Your task to perform on an android device: turn on sleep mode Image 0: 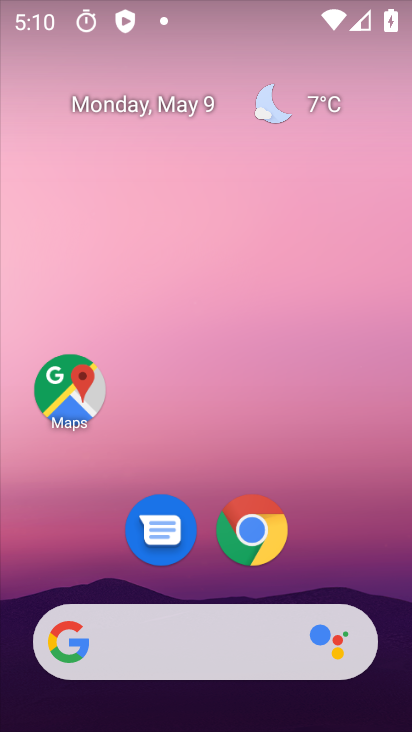
Step 0: drag from (308, 571) to (225, 105)
Your task to perform on an android device: turn on sleep mode Image 1: 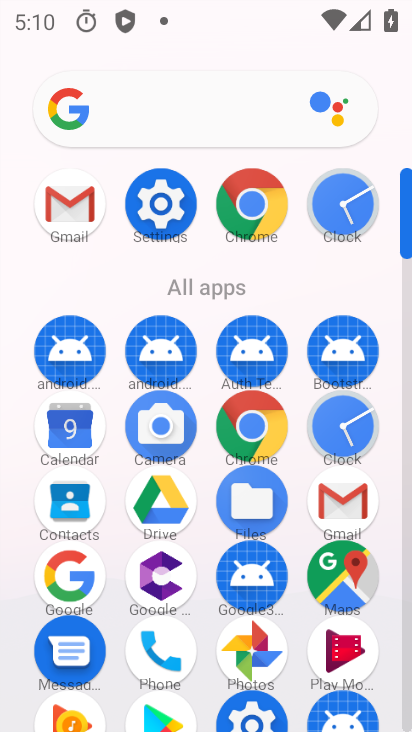
Step 1: click (158, 210)
Your task to perform on an android device: turn on sleep mode Image 2: 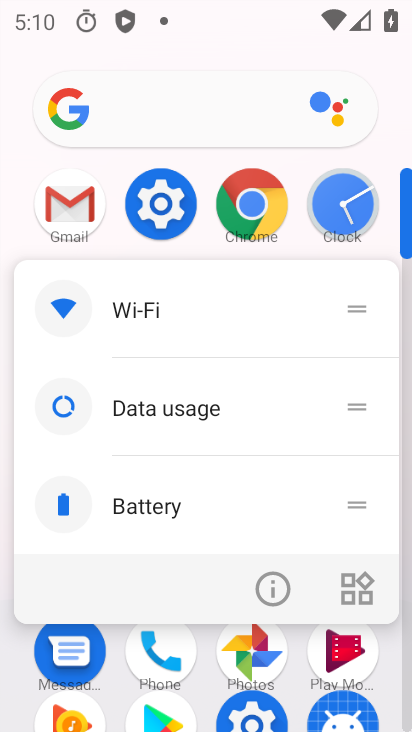
Step 2: click (158, 209)
Your task to perform on an android device: turn on sleep mode Image 3: 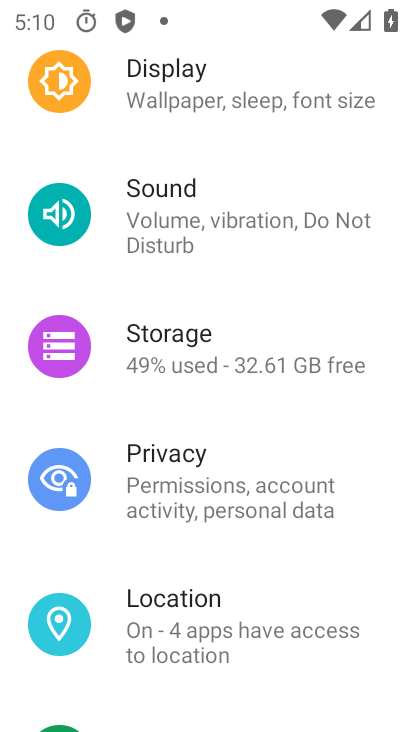
Step 3: click (240, 96)
Your task to perform on an android device: turn on sleep mode Image 4: 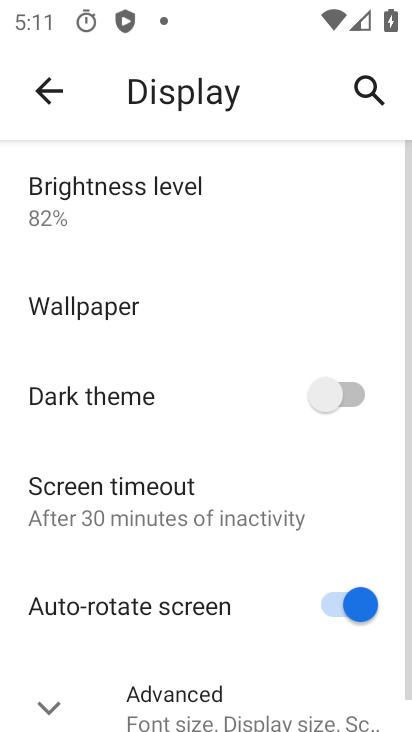
Step 4: drag from (211, 652) to (213, 262)
Your task to perform on an android device: turn on sleep mode Image 5: 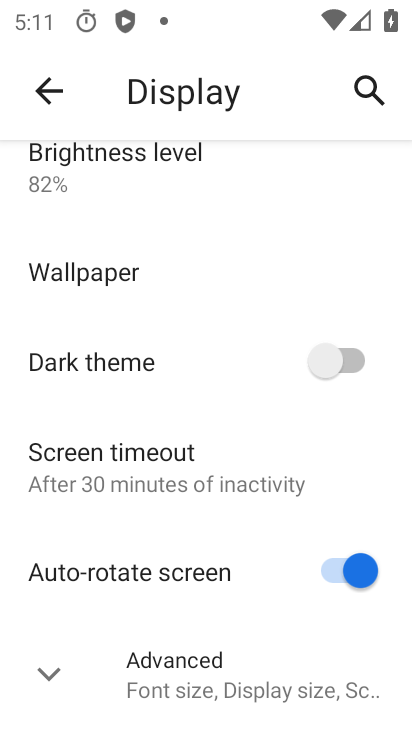
Step 5: click (101, 691)
Your task to perform on an android device: turn on sleep mode Image 6: 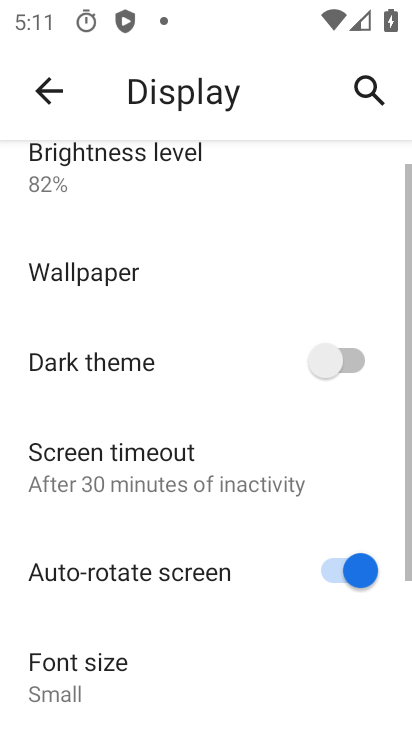
Step 6: task complete